Your task to perform on an android device: Go to accessibility settings Image 0: 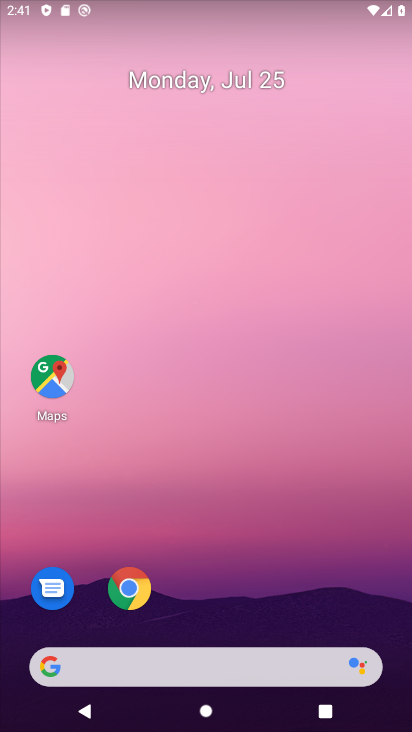
Step 0: drag from (240, 604) to (227, 106)
Your task to perform on an android device: Go to accessibility settings Image 1: 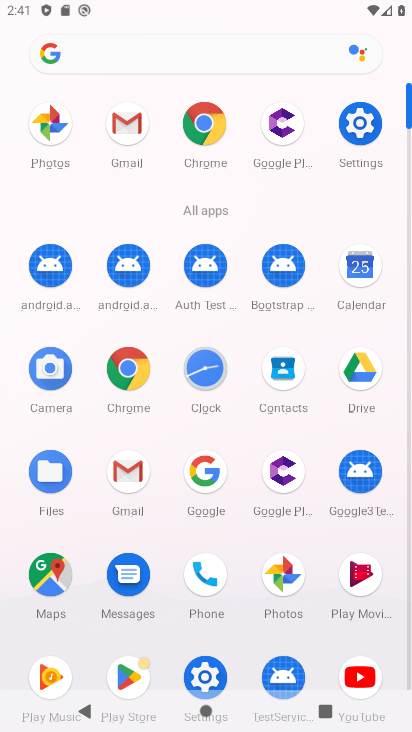
Step 1: click (363, 120)
Your task to perform on an android device: Go to accessibility settings Image 2: 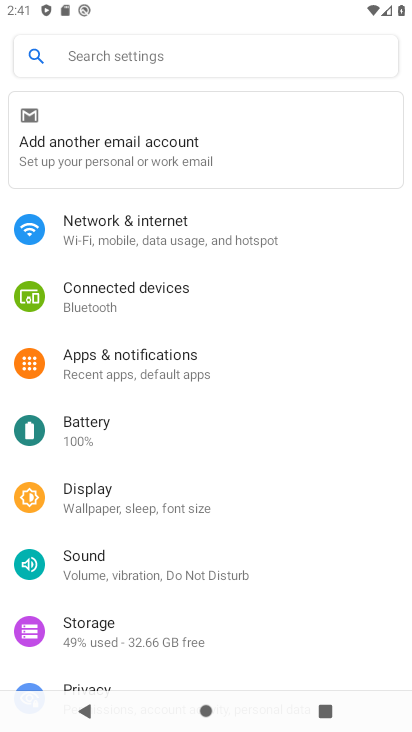
Step 2: drag from (191, 598) to (183, 166)
Your task to perform on an android device: Go to accessibility settings Image 3: 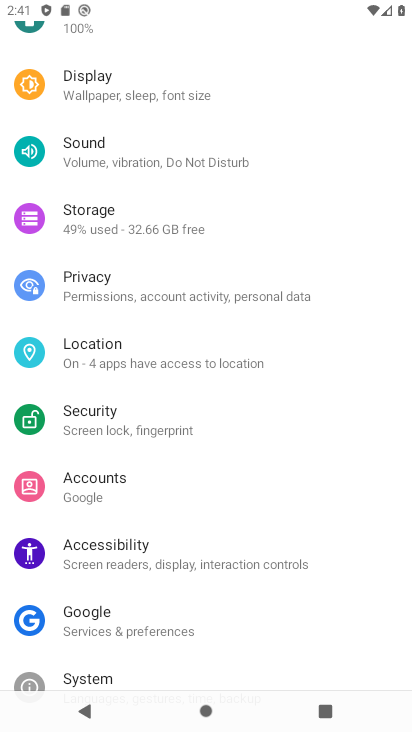
Step 3: click (125, 544)
Your task to perform on an android device: Go to accessibility settings Image 4: 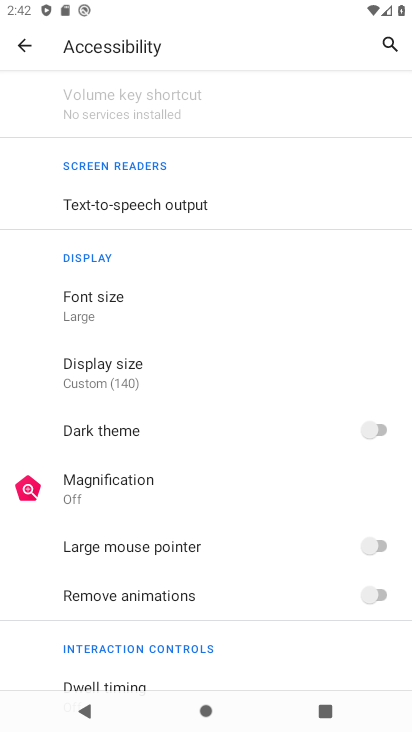
Step 4: task complete